Your task to perform on an android device: allow cookies in the chrome app Image 0: 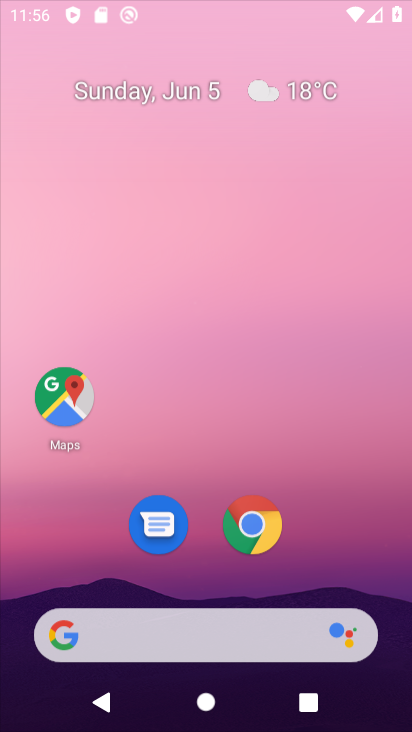
Step 0: drag from (145, 0) to (323, 22)
Your task to perform on an android device: allow cookies in the chrome app Image 1: 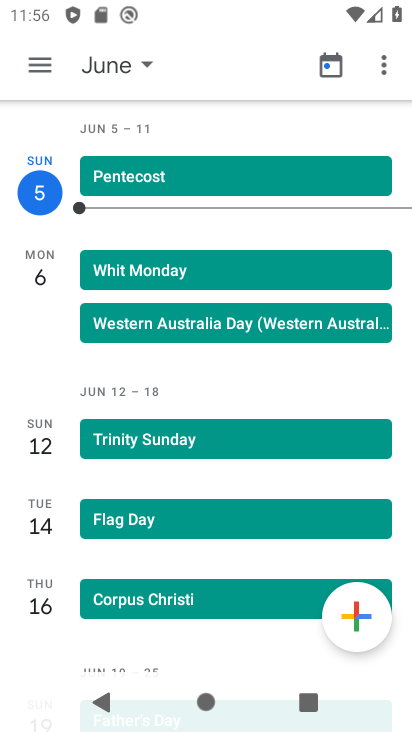
Step 1: press home button
Your task to perform on an android device: allow cookies in the chrome app Image 2: 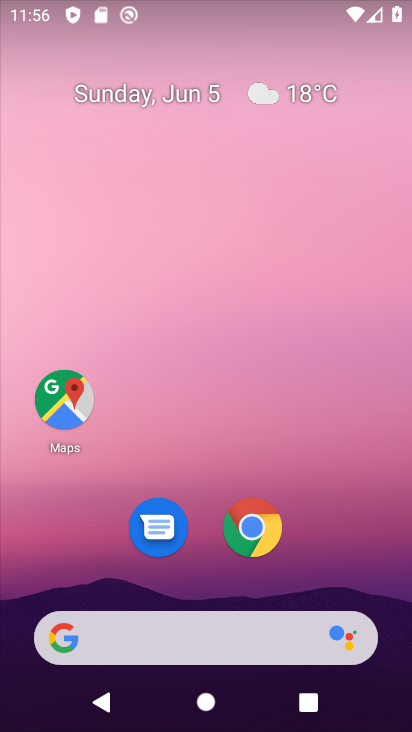
Step 2: drag from (187, 592) to (377, 36)
Your task to perform on an android device: allow cookies in the chrome app Image 3: 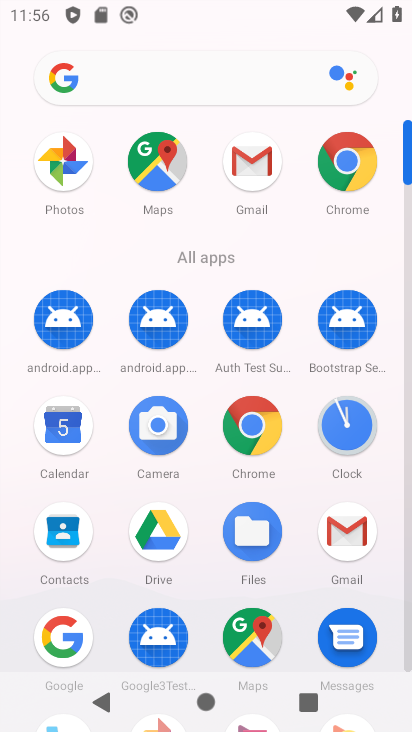
Step 3: click (264, 421)
Your task to perform on an android device: allow cookies in the chrome app Image 4: 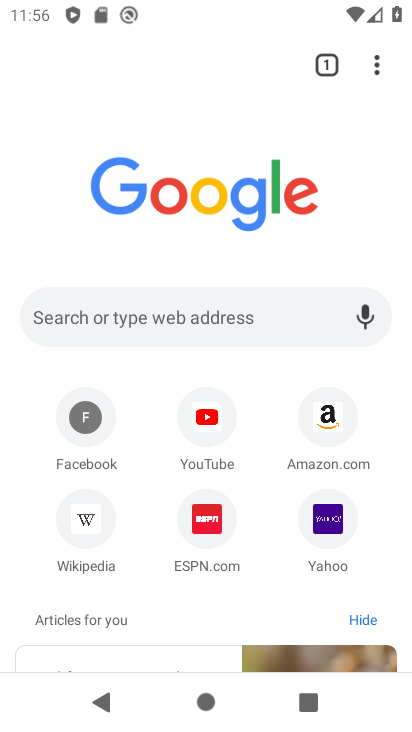
Step 4: drag from (372, 62) to (109, 529)
Your task to perform on an android device: allow cookies in the chrome app Image 5: 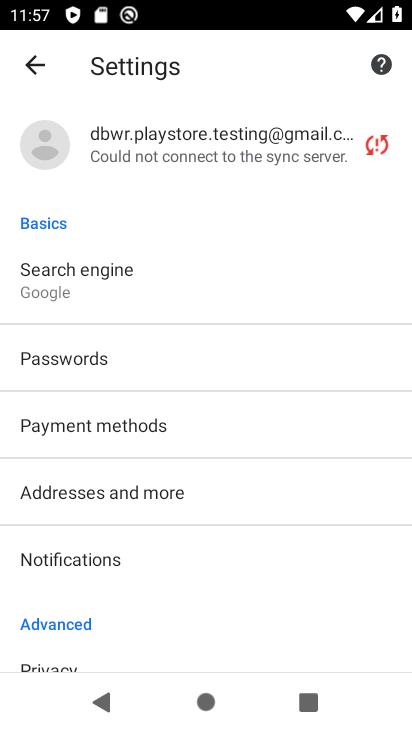
Step 5: drag from (79, 515) to (41, 0)
Your task to perform on an android device: allow cookies in the chrome app Image 6: 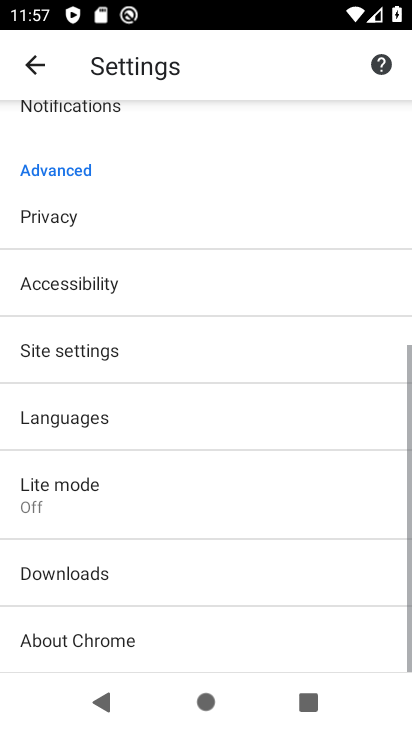
Step 6: click (42, 354)
Your task to perform on an android device: allow cookies in the chrome app Image 7: 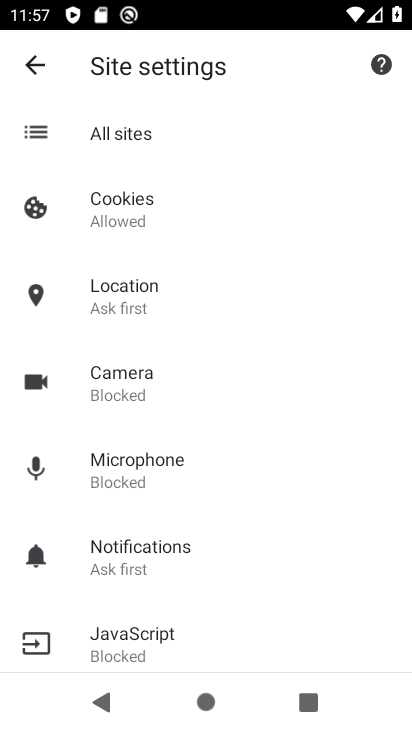
Step 7: task complete